Your task to perform on an android device: Show me the alarms in the clock app Image 0: 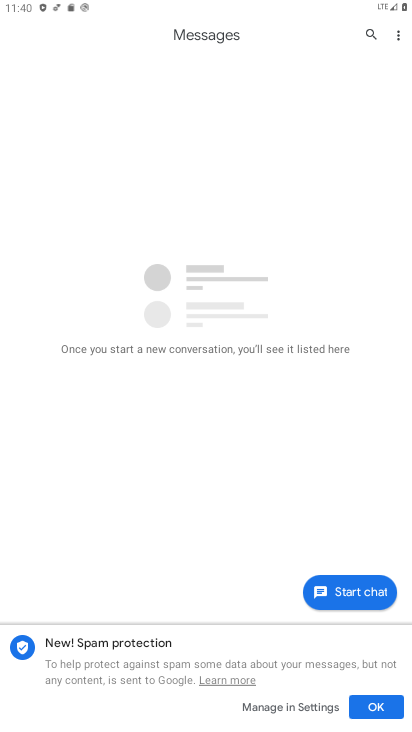
Step 0: drag from (219, 581) to (210, 311)
Your task to perform on an android device: Show me the alarms in the clock app Image 1: 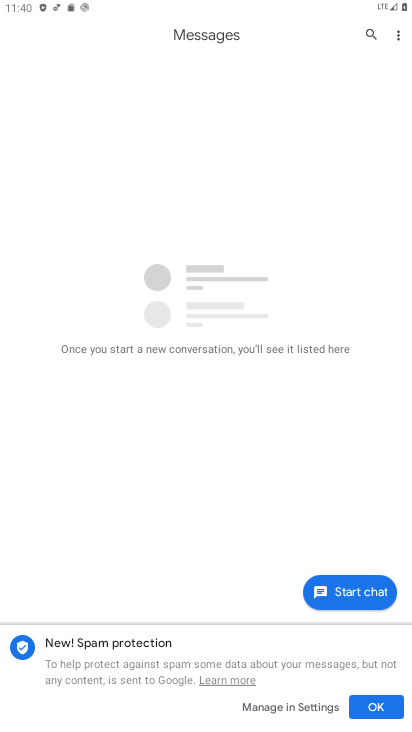
Step 1: press home button
Your task to perform on an android device: Show me the alarms in the clock app Image 2: 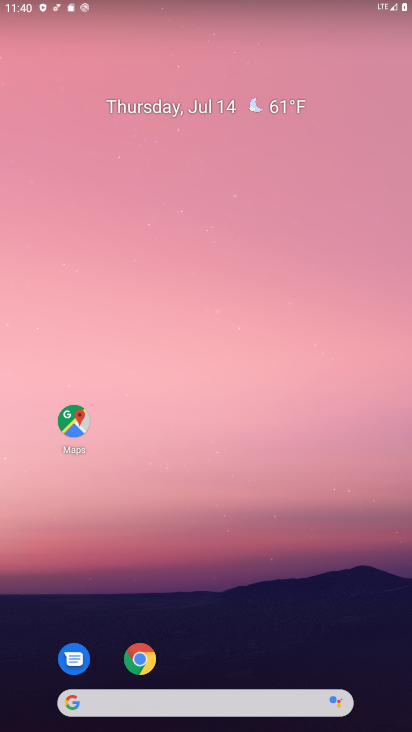
Step 2: drag from (157, 670) to (162, 236)
Your task to perform on an android device: Show me the alarms in the clock app Image 3: 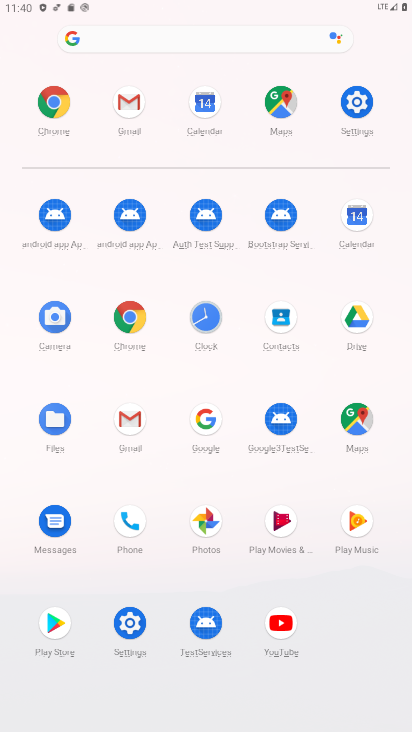
Step 3: drag from (274, 478) to (268, 332)
Your task to perform on an android device: Show me the alarms in the clock app Image 4: 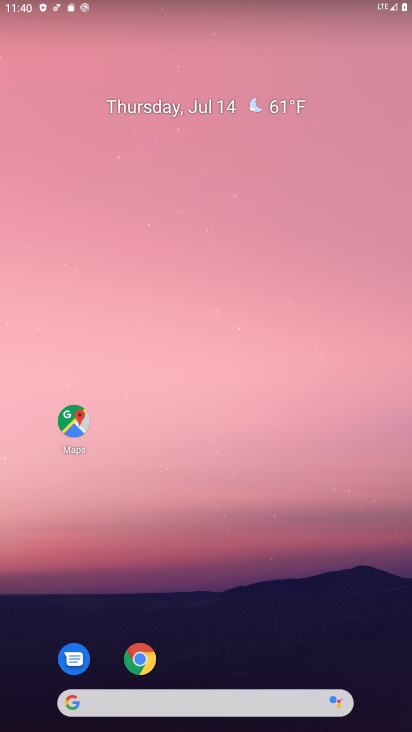
Step 4: click (218, 309)
Your task to perform on an android device: Show me the alarms in the clock app Image 5: 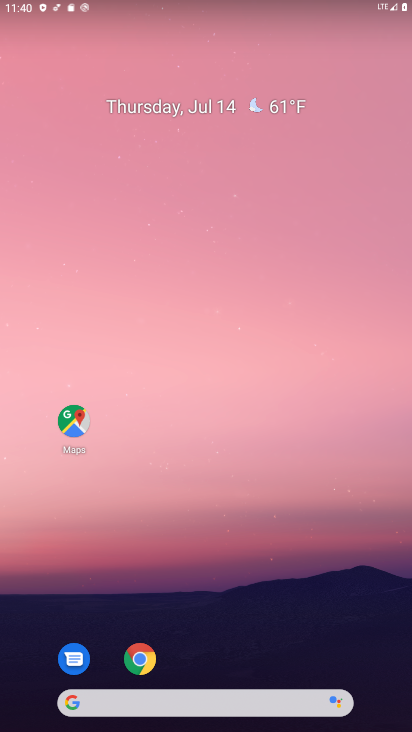
Step 5: drag from (230, 686) to (222, 293)
Your task to perform on an android device: Show me the alarms in the clock app Image 6: 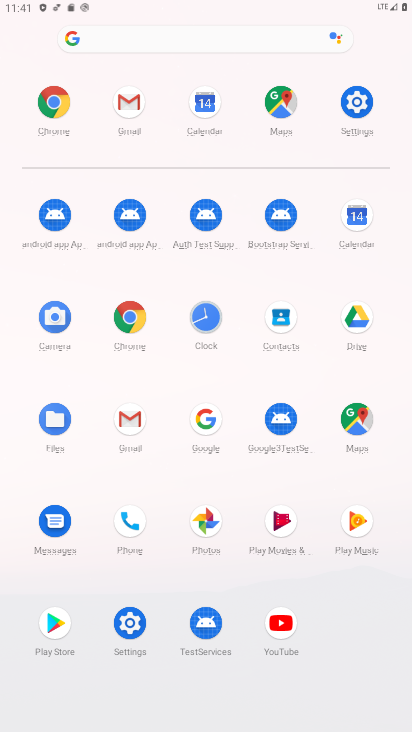
Step 6: click (184, 502)
Your task to perform on an android device: Show me the alarms in the clock app Image 7: 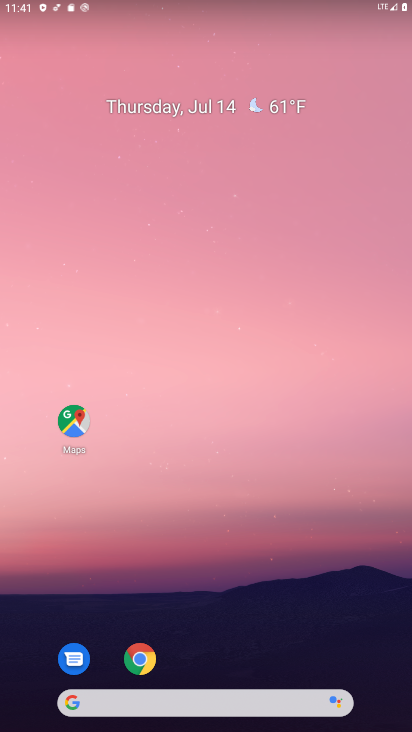
Step 7: click (247, 209)
Your task to perform on an android device: Show me the alarms in the clock app Image 8: 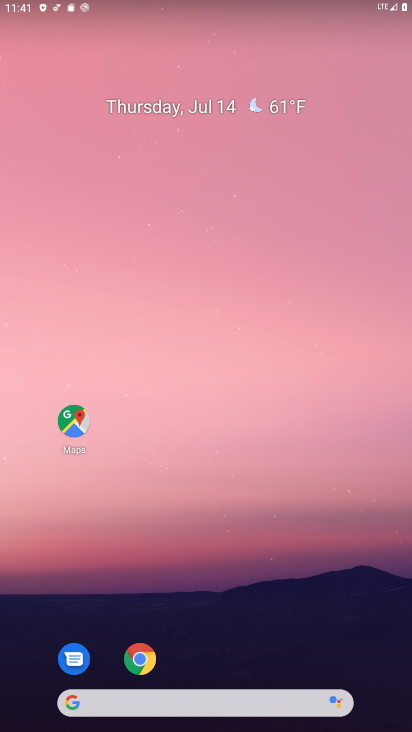
Step 8: drag from (239, 659) to (239, 252)
Your task to perform on an android device: Show me the alarms in the clock app Image 9: 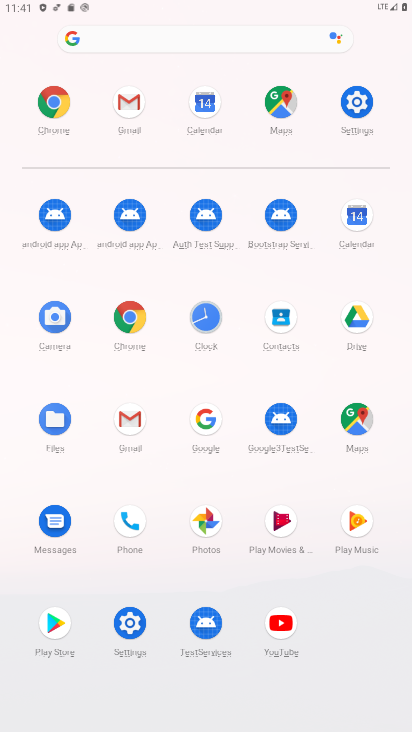
Step 9: drag from (205, 674) to (202, 404)
Your task to perform on an android device: Show me the alarms in the clock app Image 10: 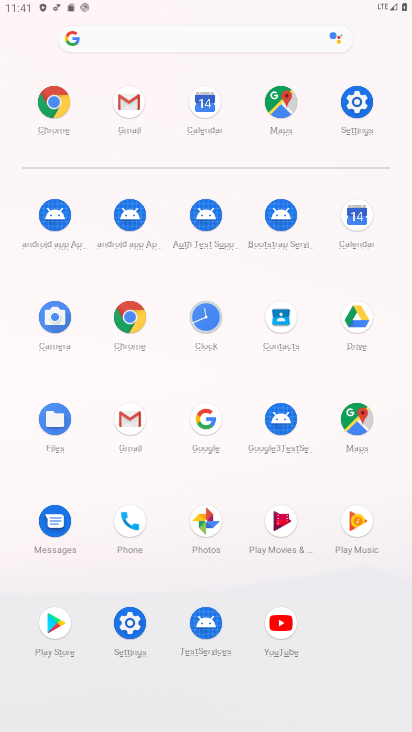
Step 10: click (202, 315)
Your task to perform on an android device: Show me the alarms in the clock app Image 11: 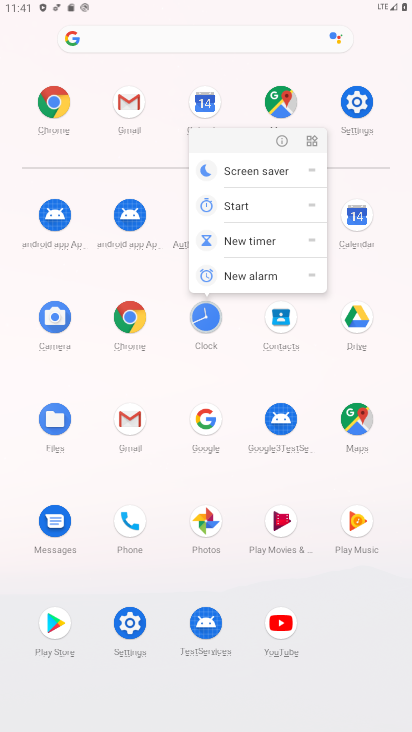
Step 11: click (208, 322)
Your task to perform on an android device: Show me the alarms in the clock app Image 12: 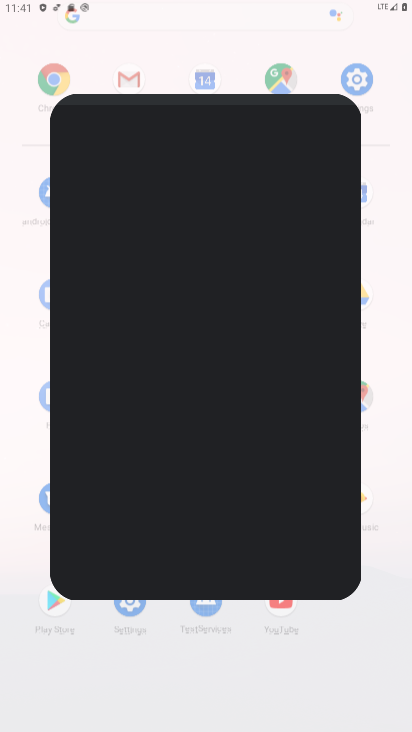
Step 12: click (208, 321)
Your task to perform on an android device: Show me the alarms in the clock app Image 13: 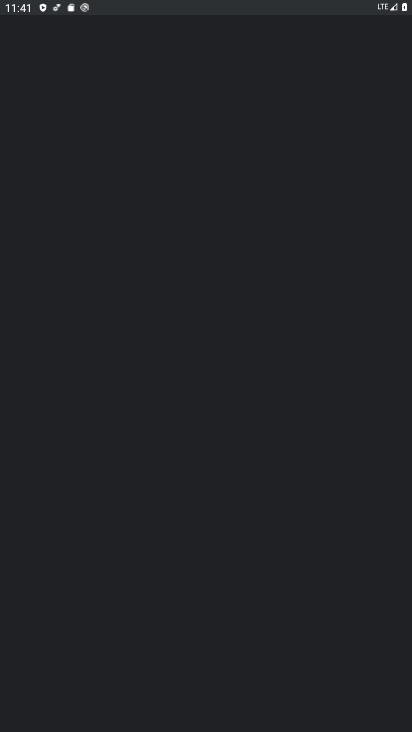
Step 13: click (208, 321)
Your task to perform on an android device: Show me the alarms in the clock app Image 14: 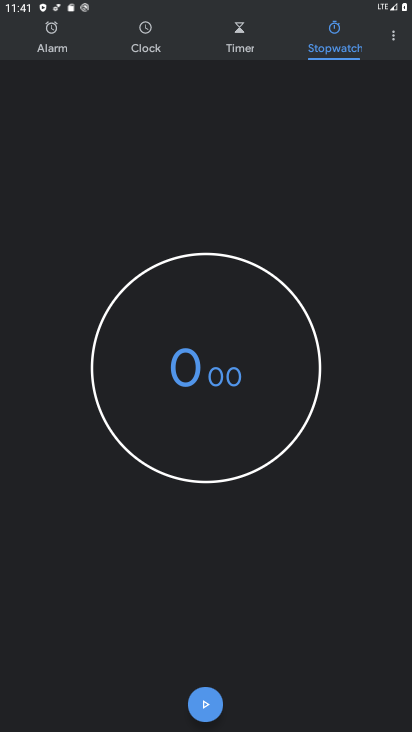
Step 14: click (57, 21)
Your task to perform on an android device: Show me the alarms in the clock app Image 15: 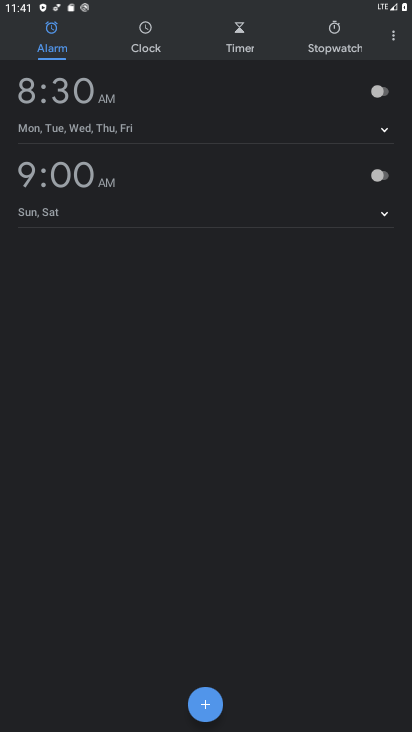
Step 15: task complete